Your task to perform on an android device: Open Android settings Image 0: 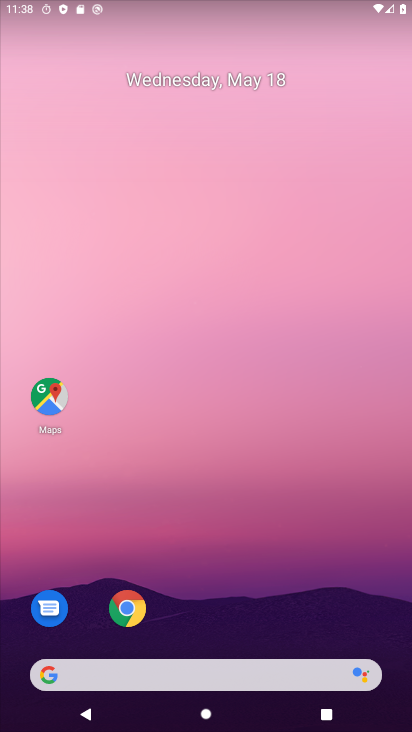
Step 0: drag from (272, 624) to (248, 3)
Your task to perform on an android device: Open Android settings Image 1: 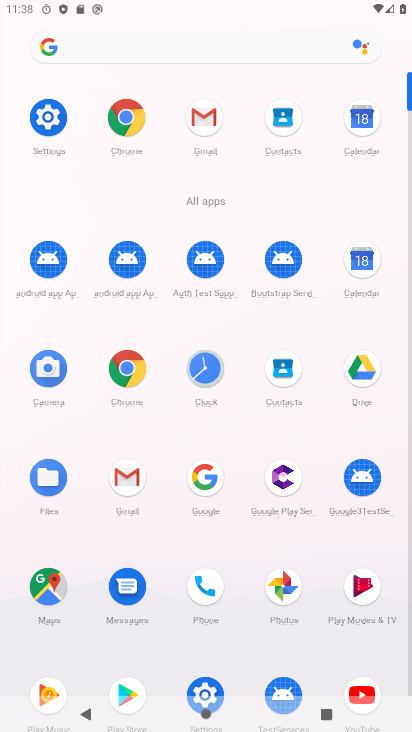
Step 1: click (57, 127)
Your task to perform on an android device: Open Android settings Image 2: 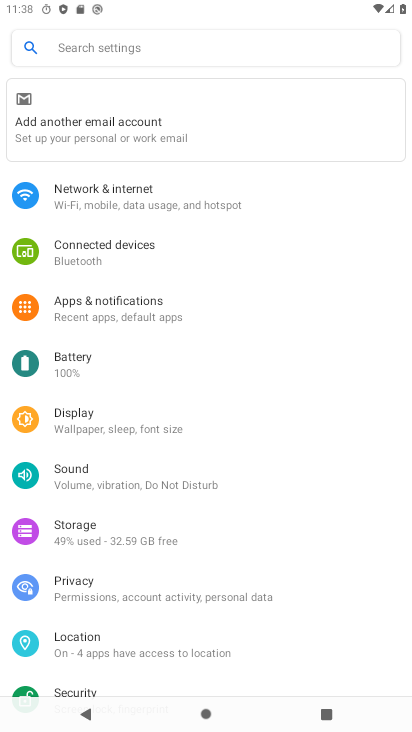
Step 2: task complete